Your task to perform on an android device: Go to eBay Image 0: 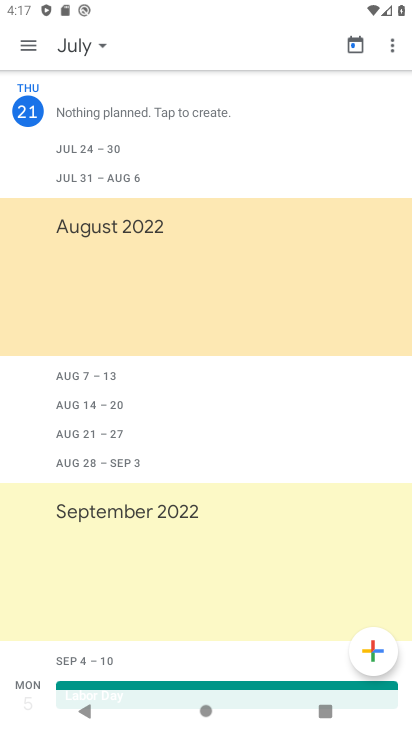
Step 0: press home button
Your task to perform on an android device: Go to eBay Image 1: 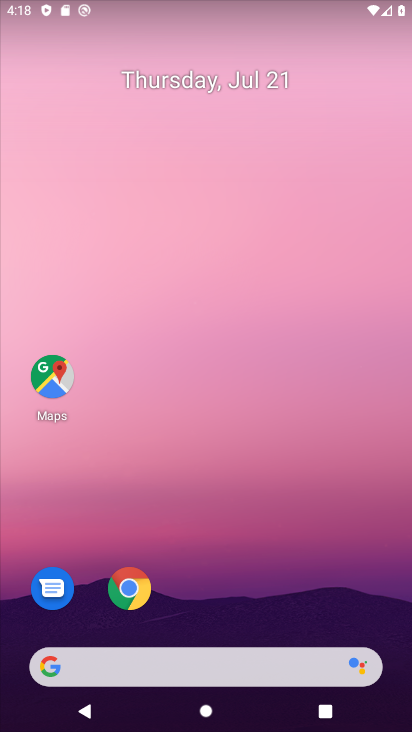
Step 1: drag from (239, 555) to (212, 234)
Your task to perform on an android device: Go to eBay Image 2: 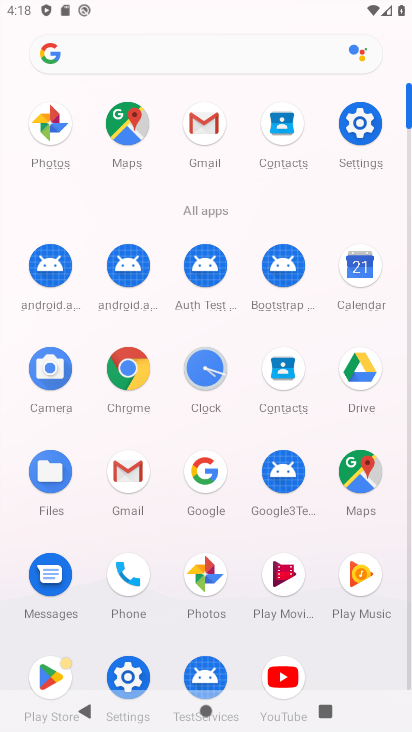
Step 2: click (128, 366)
Your task to perform on an android device: Go to eBay Image 3: 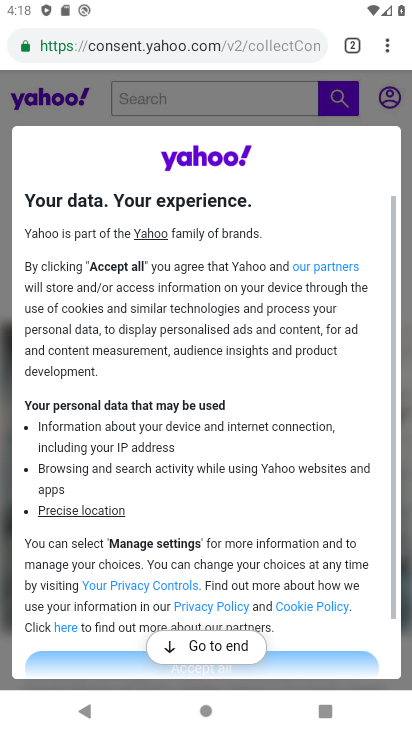
Step 3: click (348, 50)
Your task to perform on an android device: Go to eBay Image 4: 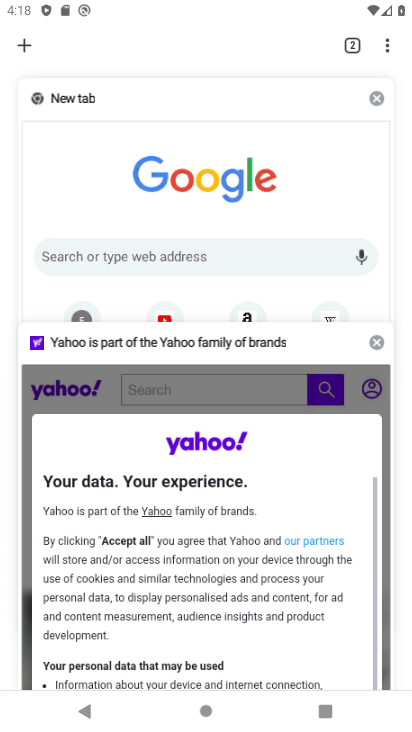
Step 4: click (25, 43)
Your task to perform on an android device: Go to eBay Image 5: 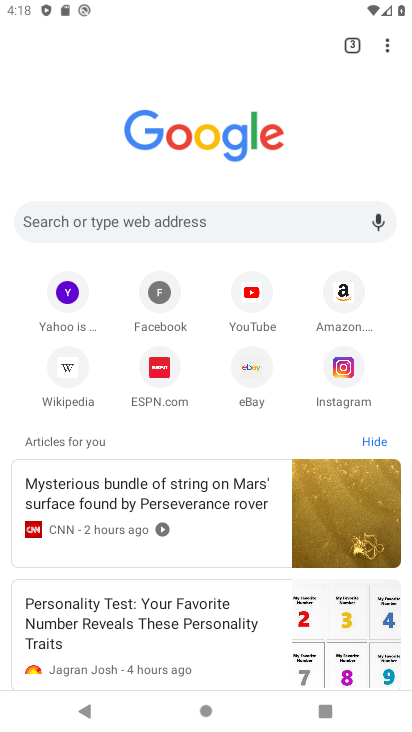
Step 5: click (254, 379)
Your task to perform on an android device: Go to eBay Image 6: 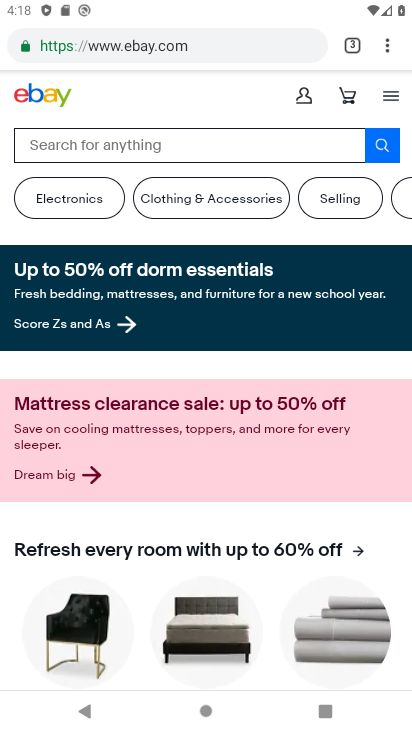
Step 6: task complete